Your task to perform on an android device: all mails in gmail Image 0: 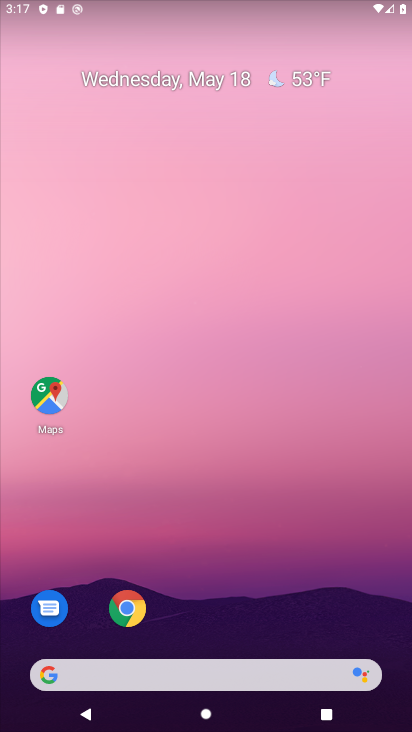
Step 0: drag from (136, 663) to (246, 66)
Your task to perform on an android device: all mails in gmail Image 1: 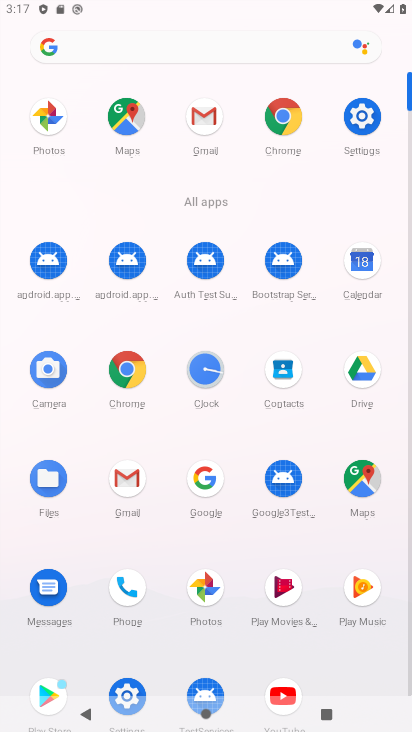
Step 1: click (119, 474)
Your task to perform on an android device: all mails in gmail Image 2: 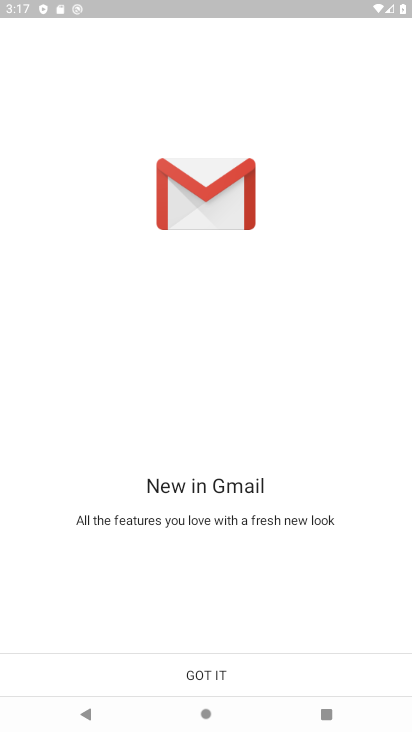
Step 2: click (211, 678)
Your task to perform on an android device: all mails in gmail Image 3: 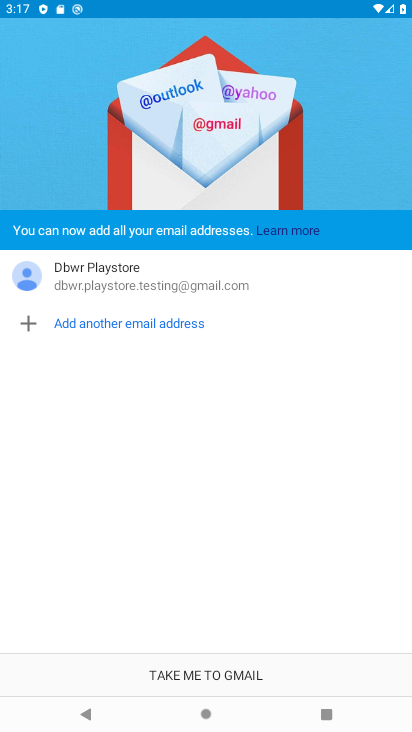
Step 3: click (211, 678)
Your task to perform on an android device: all mails in gmail Image 4: 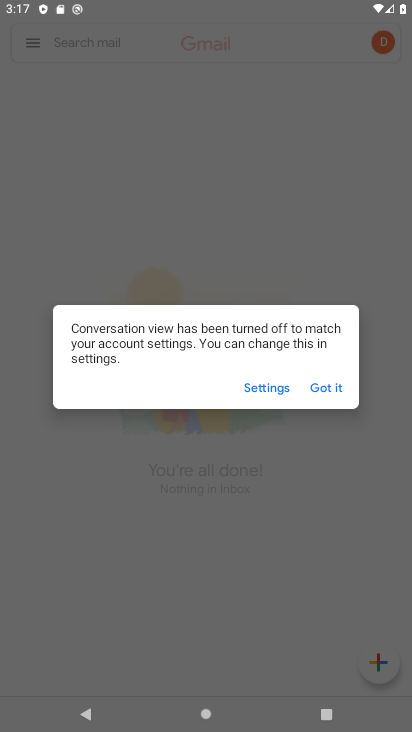
Step 4: click (333, 385)
Your task to perform on an android device: all mails in gmail Image 5: 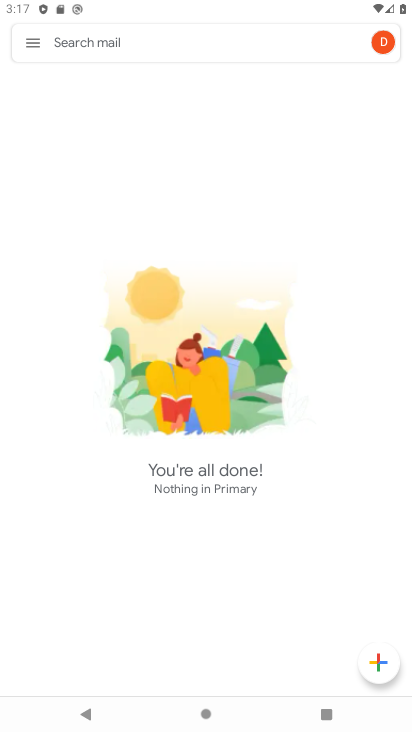
Step 5: click (36, 48)
Your task to perform on an android device: all mails in gmail Image 6: 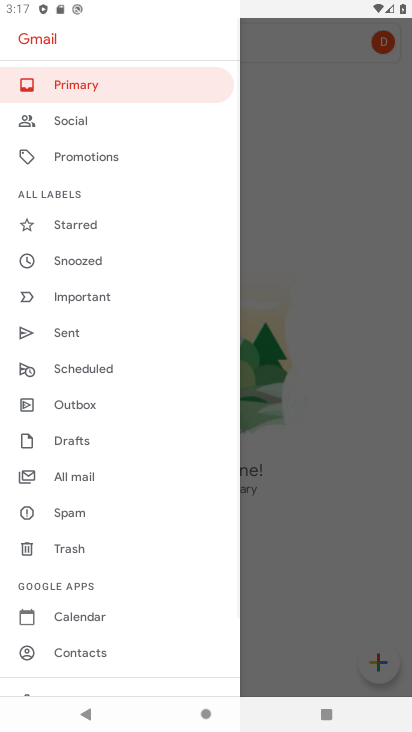
Step 6: click (76, 480)
Your task to perform on an android device: all mails in gmail Image 7: 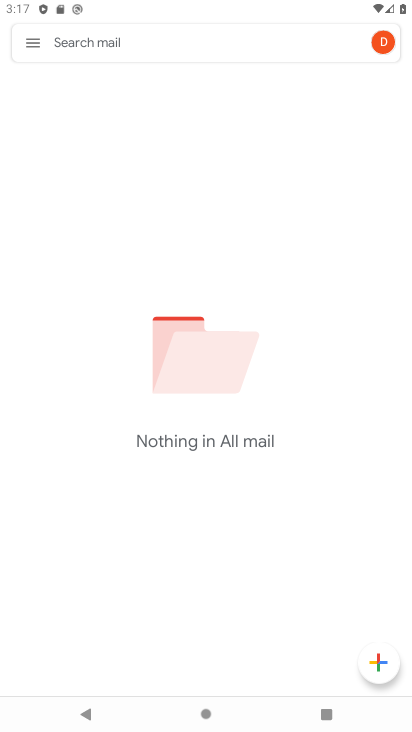
Step 7: task complete